Your task to perform on an android device: turn off smart reply in the gmail app Image 0: 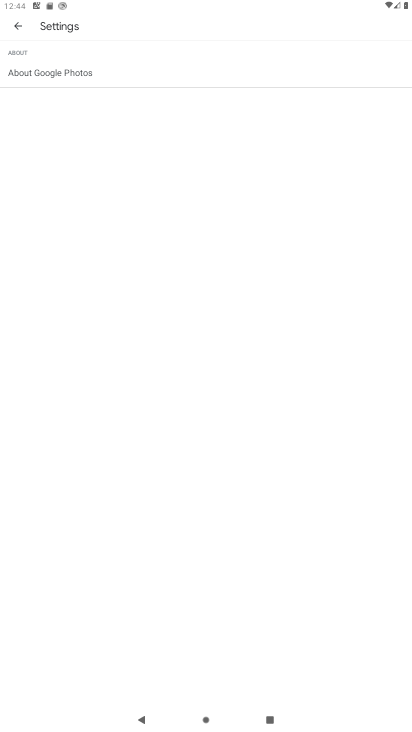
Step 0: press home button
Your task to perform on an android device: turn off smart reply in the gmail app Image 1: 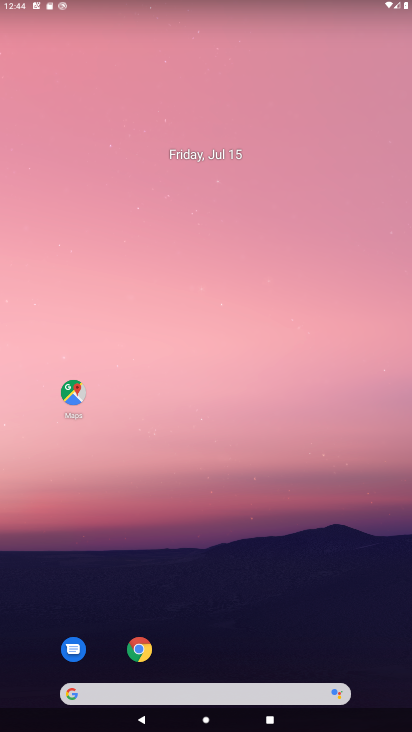
Step 1: press home button
Your task to perform on an android device: turn off smart reply in the gmail app Image 2: 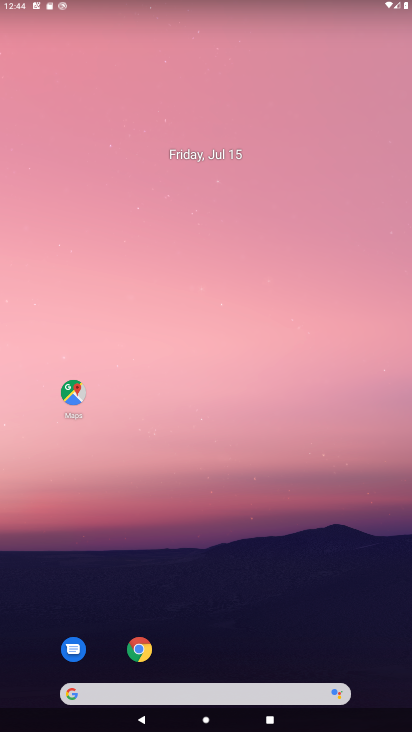
Step 2: drag from (256, 565) to (253, 150)
Your task to perform on an android device: turn off smart reply in the gmail app Image 3: 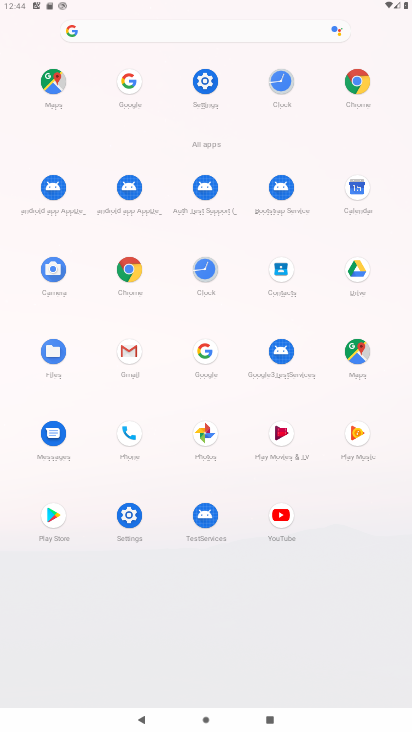
Step 3: click (117, 352)
Your task to perform on an android device: turn off smart reply in the gmail app Image 4: 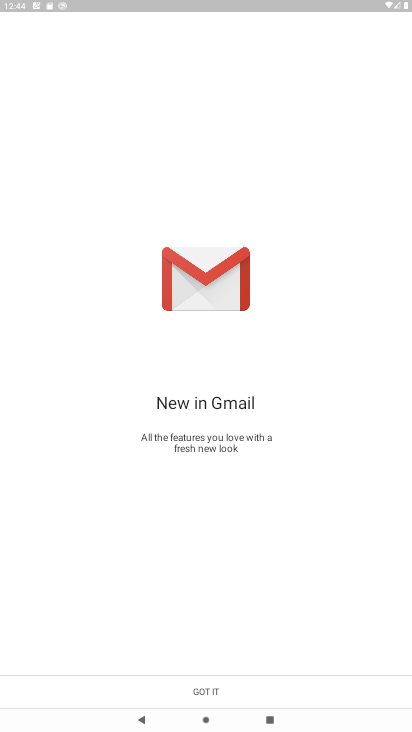
Step 4: click (211, 687)
Your task to perform on an android device: turn off smart reply in the gmail app Image 5: 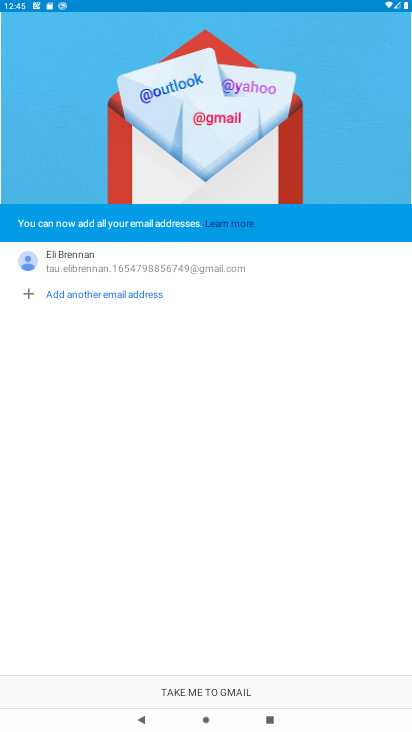
Step 5: click (211, 687)
Your task to perform on an android device: turn off smart reply in the gmail app Image 6: 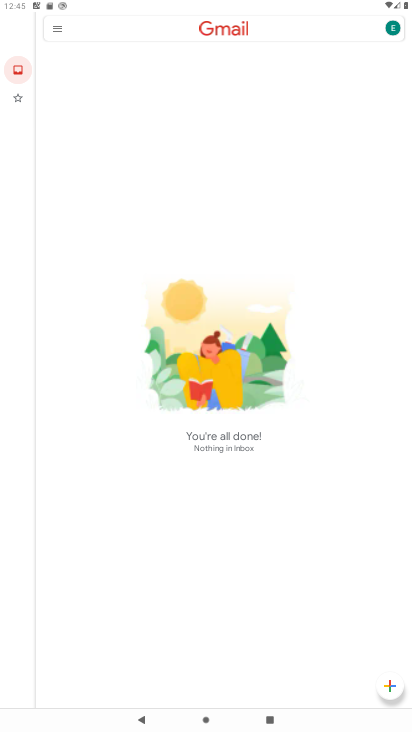
Step 6: click (19, 30)
Your task to perform on an android device: turn off smart reply in the gmail app Image 7: 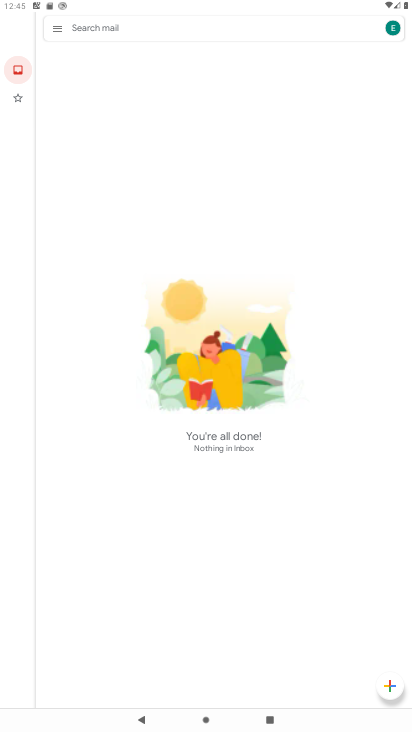
Step 7: click (50, 22)
Your task to perform on an android device: turn off smart reply in the gmail app Image 8: 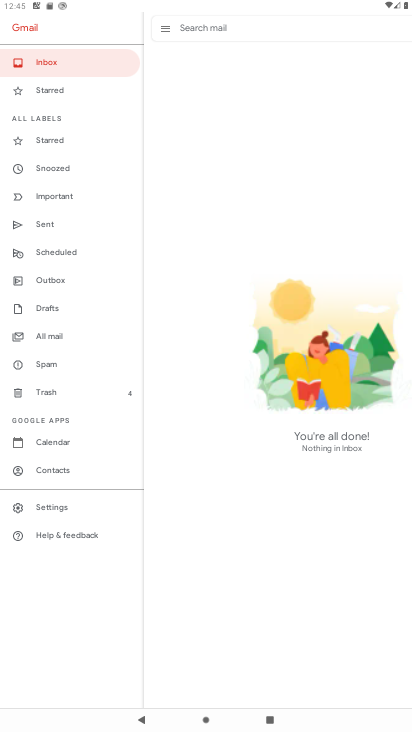
Step 8: click (50, 506)
Your task to perform on an android device: turn off smart reply in the gmail app Image 9: 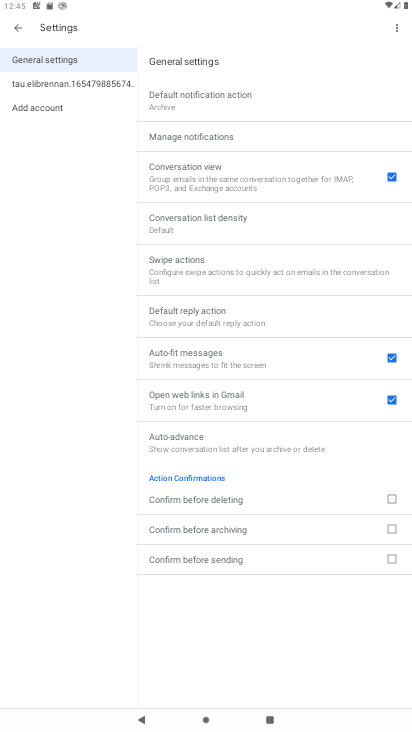
Step 9: click (50, 94)
Your task to perform on an android device: turn off smart reply in the gmail app Image 10: 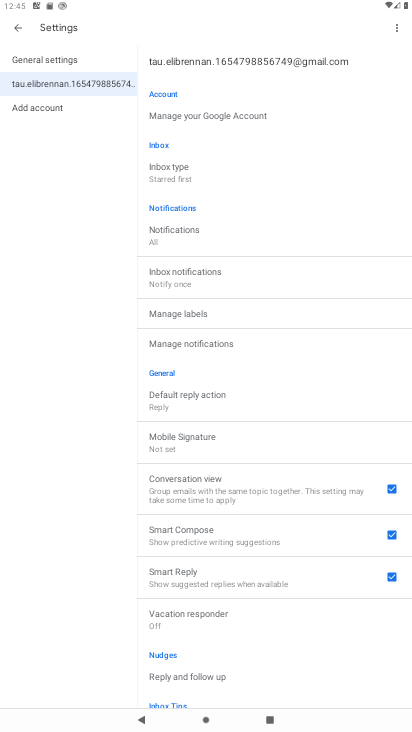
Step 10: click (390, 573)
Your task to perform on an android device: turn off smart reply in the gmail app Image 11: 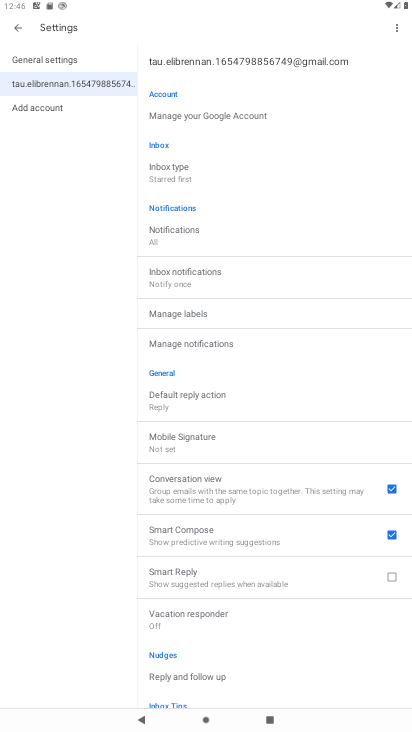
Step 11: task complete